Your task to perform on an android device: check android version Image 0: 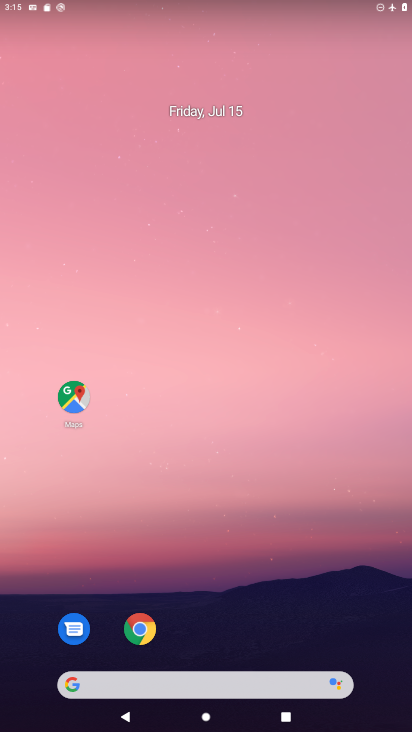
Step 0: drag from (273, 490) to (300, 19)
Your task to perform on an android device: check android version Image 1: 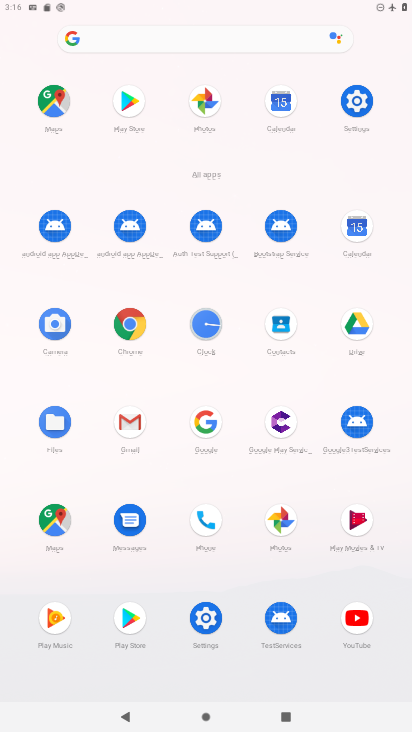
Step 1: click (363, 111)
Your task to perform on an android device: check android version Image 2: 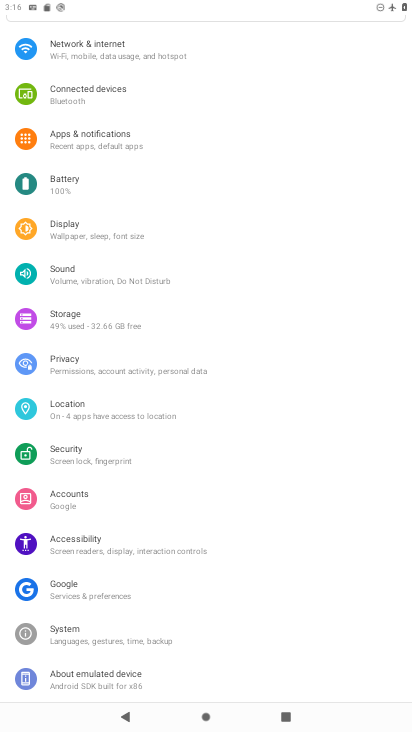
Step 2: drag from (246, 527) to (222, 0)
Your task to perform on an android device: check android version Image 3: 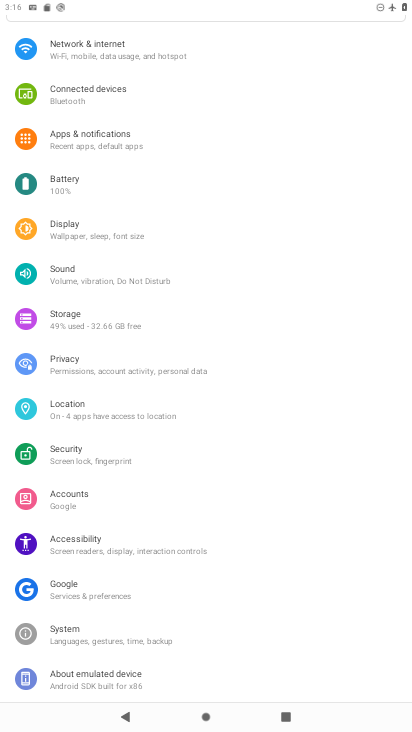
Step 3: click (57, 675)
Your task to perform on an android device: check android version Image 4: 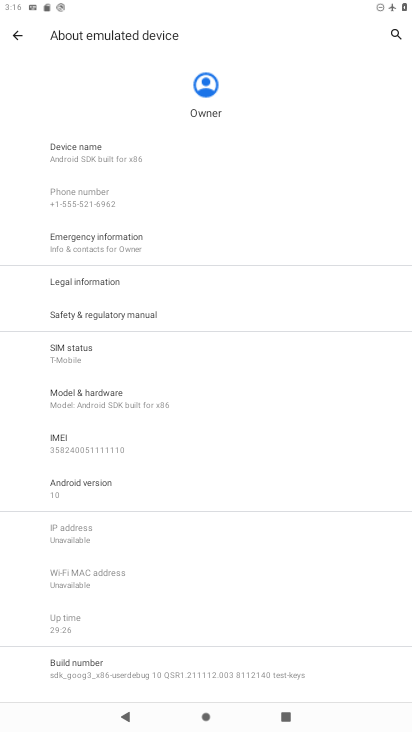
Step 4: drag from (159, 628) to (134, 158)
Your task to perform on an android device: check android version Image 5: 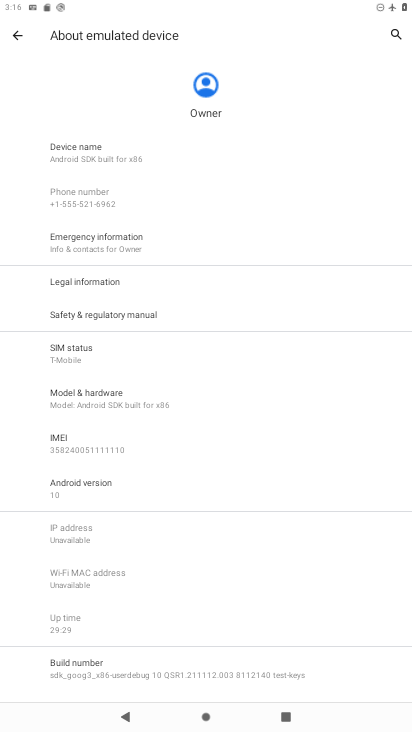
Step 5: click (93, 484)
Your task to perform on an android device: check android version Image 6: 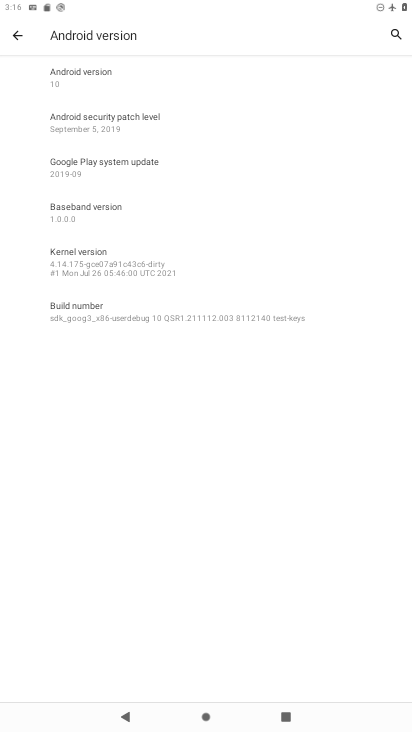
Step 6: task complete